Your task to perform on an android device: Go to Android settings Image 0: 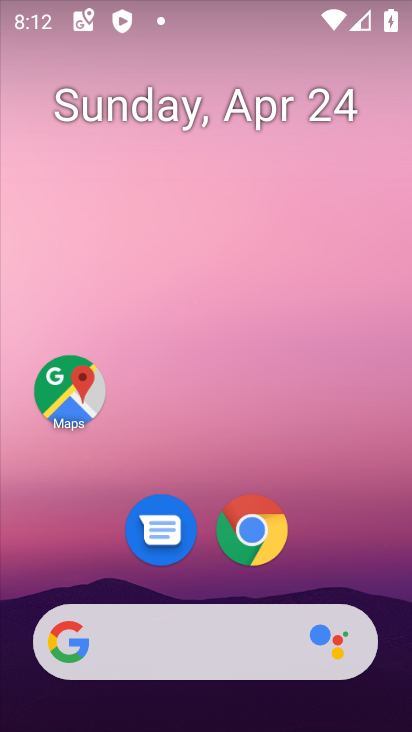
Step 0: drag from (195, 592) to (205, 147)
Your task to perform on an android device: Go to Android settings Image 1: 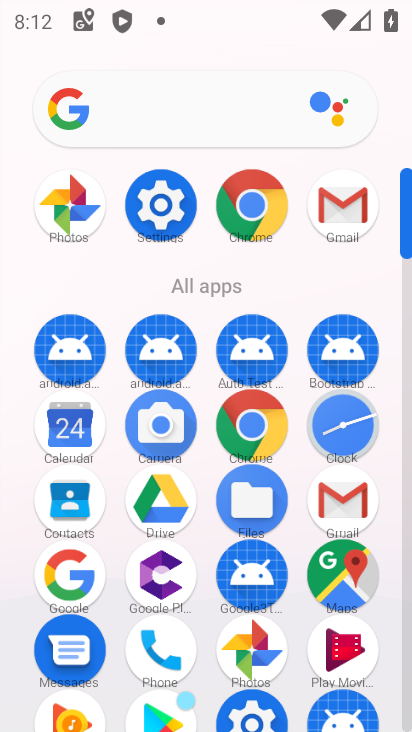
Step 1: click (250, 718)
Your task to perform on an android device: Go to Android settings Image 2: 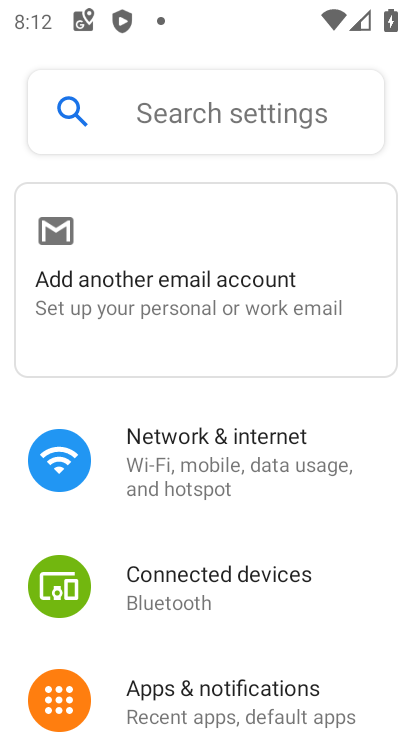
Step 2: drag from (250, 718) to (304, 55)
Your task to perform on an android device: Go to Android settings Image 3: 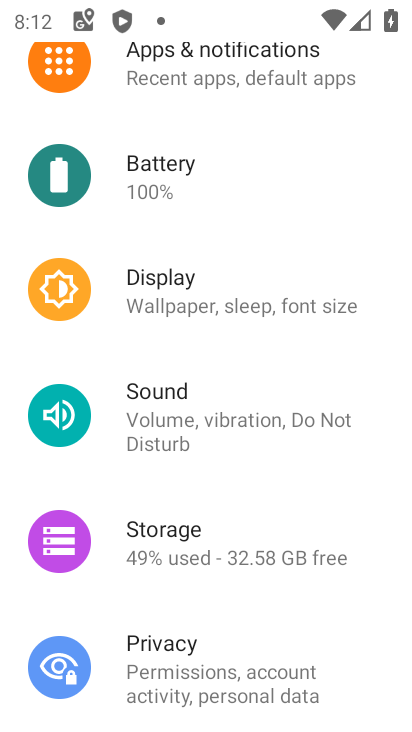
Step 3: drag from (198, 668) to (239, 331)
Your task to perform on an android device: Go to Android settings Image 4: 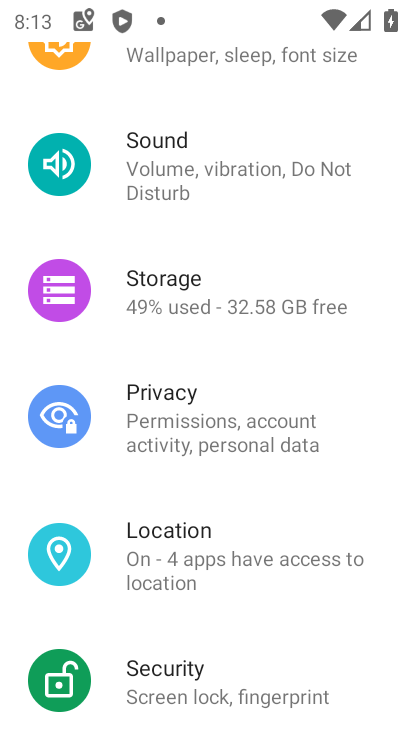
Step 4: drag from (172, 659) to (198, 292)
Your task to perform on an android device: Go to Android settings Image 5: 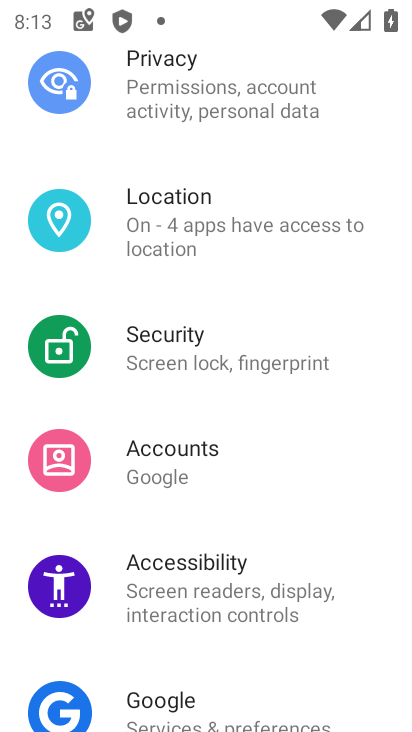
Step 5: drag from (157, 699) to (222, 233)
Your task to perform on an android device: Go to Android settings Image 6: 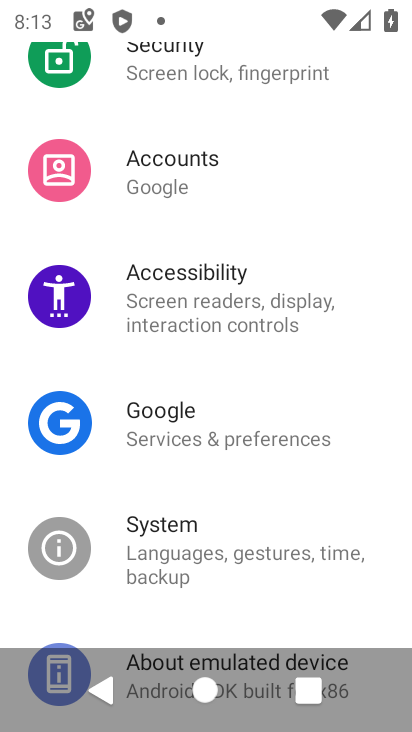
Step 6: drag from (176, 609) to (167, 201)
Your task to perform on an android device: Go to Android settings Image 7: 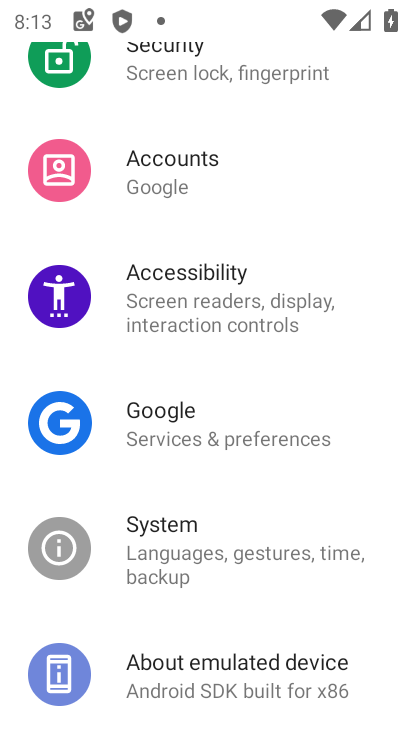
Step 7: click (223, 703)
Your task to perform on an android device: Go to Android settings Image 8: 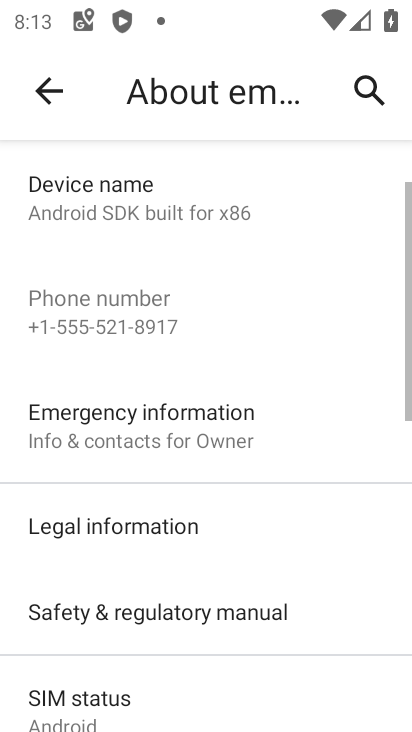
Step 8: drag from (169, 679) to (160, 410)
Your task to perform on an android device: Go to Android settings Image 9: 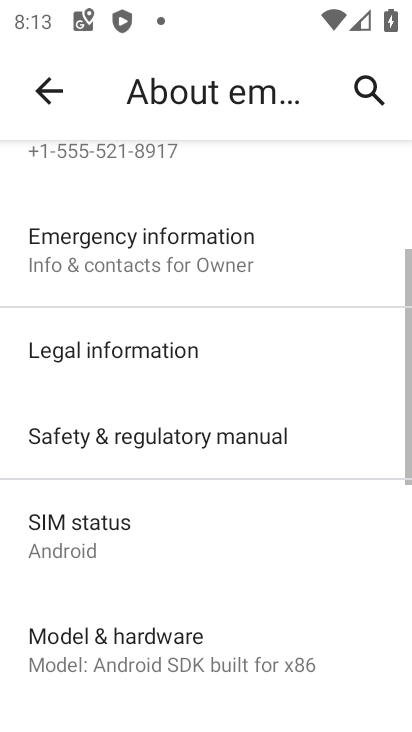
Step 9: drag from (215, 167) to (269, 606)
Your task to perform on an android device: Go to Android settings Image 10: 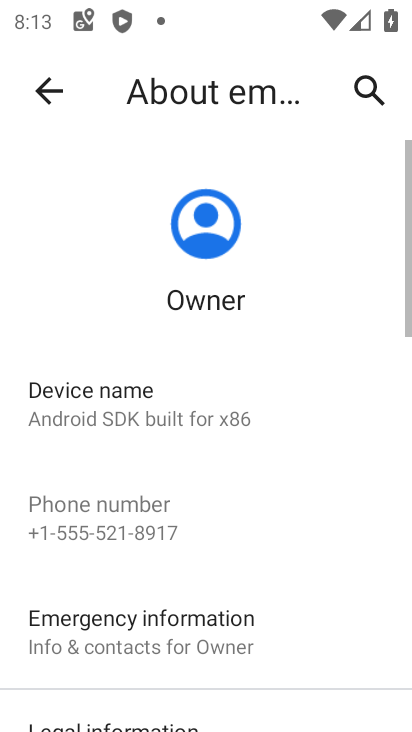
Step 10: drag from (124, 572) to (172, 145)
Your task to perform on an android device: Go to Android settings Image 11: 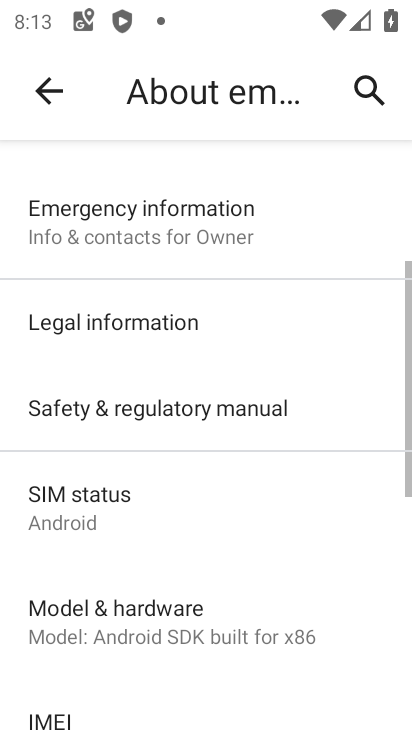
Step 11: drag from (96, 691) to (172, 295)
Your task to perform on an android device: Go to Android settings Image 12: 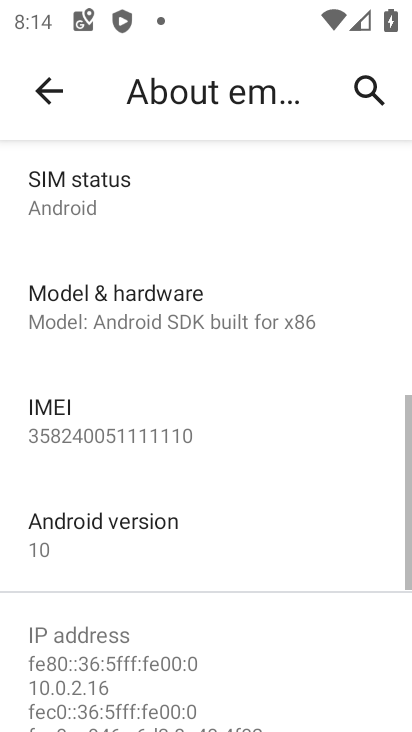
Step 12: click (167, 541)
Your task to perform on an android device: Go to Android settings Image 13: 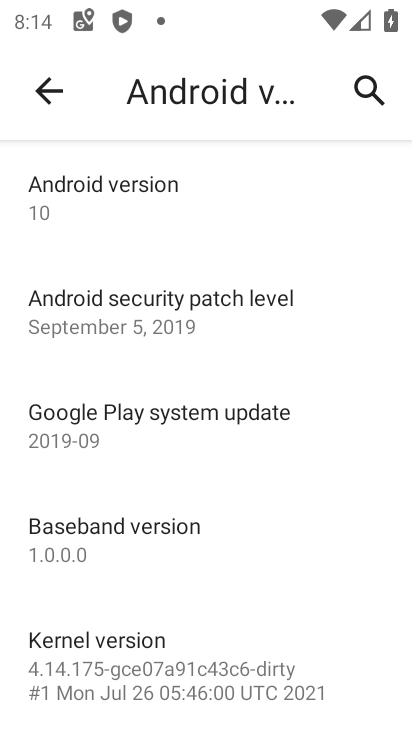
Step 13: task complete